Your task to perform on an android device: Open Chrome and go to settings Image 0: 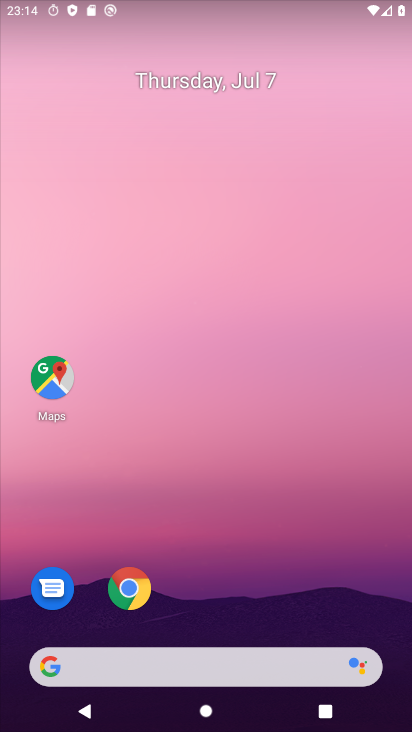
Step 0: drag from (257, 572) to (241, 45)
Your task to perform on an android device: Open Chrome and go to settings Image 1: 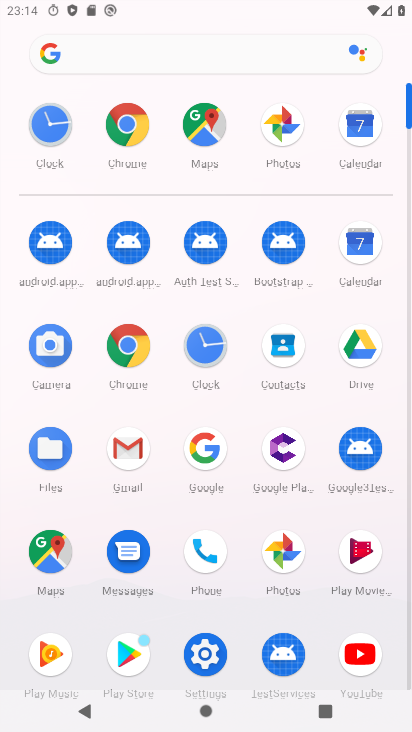
Step 1: click (129, 116)
Your task to perform on an android device: Open Chrome and go to settings Image 2: 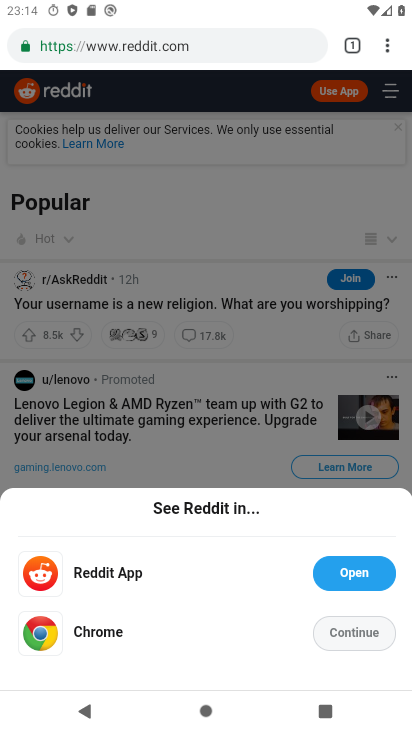
Step 2: task complete